Your task to perform on an android device: Go to accessibility settings Image 0: 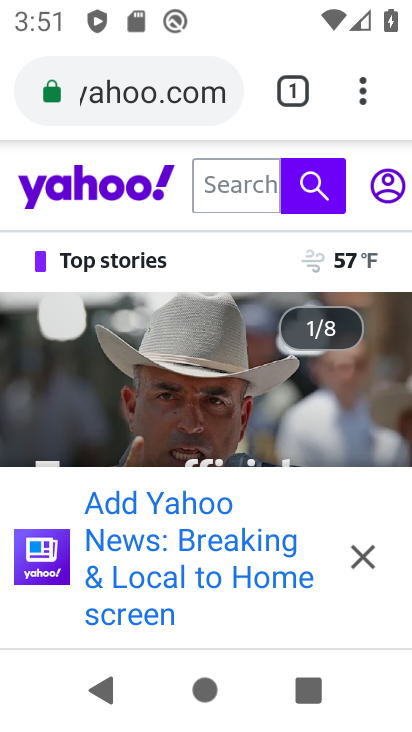
Step 0: press back button
Your task to perform on an android device: Go to accessibility settings Image 1: 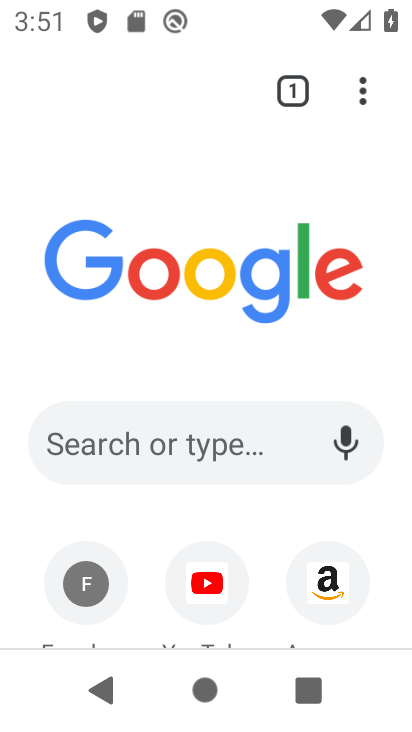
Step 1: press back button
Your task to perform on an android device: Go to accessibility settings Image 2: 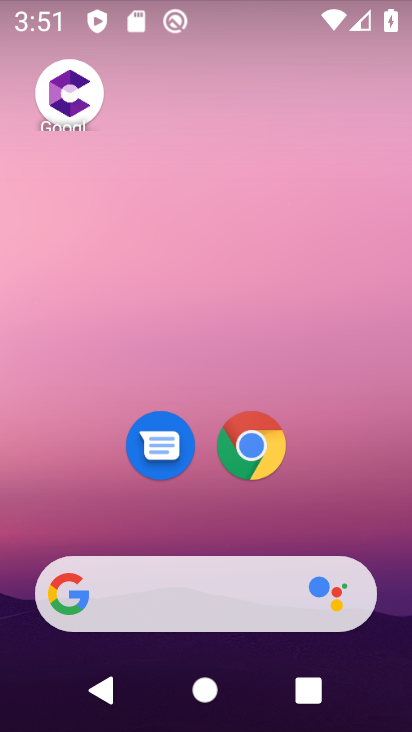
Step 2: drag from (168, 518) to (260, 3)
Your task to perform on an android device: Go to accessibility settings Image 3: 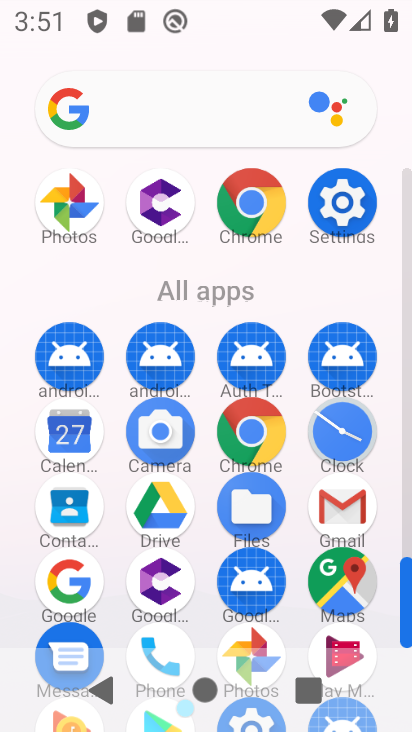
Step 3: click (338, 193)
Your task to perform on an android device: Go to accessibility settings Image 4: 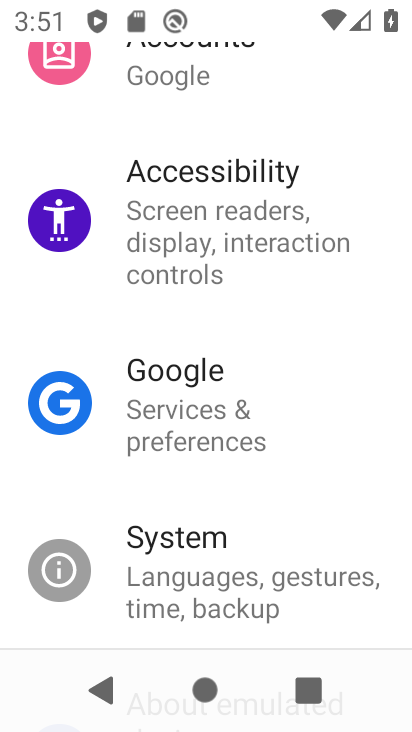
Step 4: drag from (221, 584) to (221, 101)
Your task to perform on an android device: Go to accessibility settings Image 5: 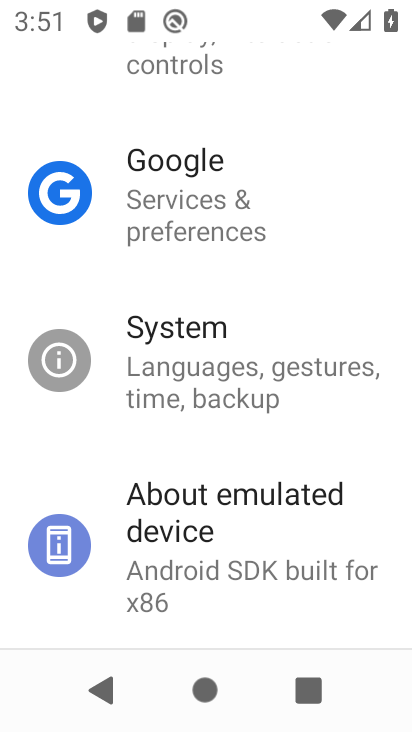
Step 5: drag from (210, 588) to (240, 74)
Your task to perform on an android device: Go to accessibility settings Image 6: 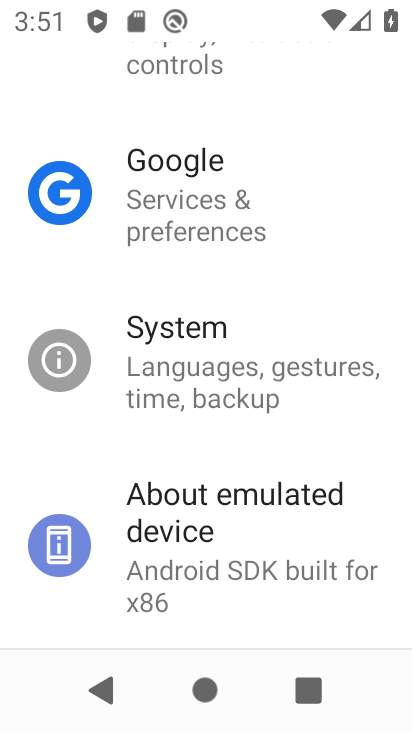
Step 6: drag from (232, 185) to (181, 585)
Your task to perform on an android device: Go to accessibility settings Image 7: 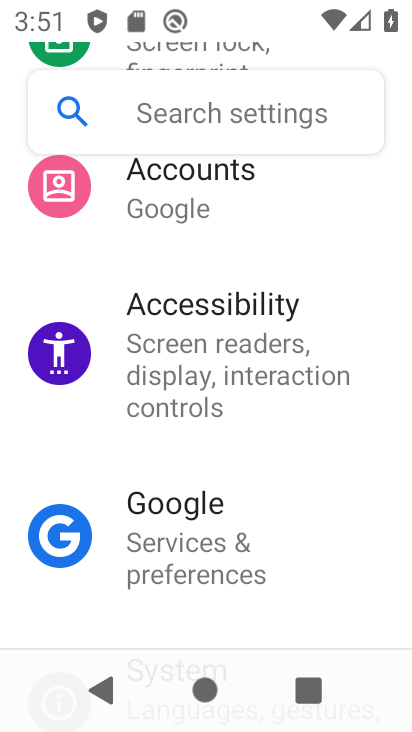
Step 7: click (188, 343)
Your task to perform on an android device: Go to accessibility settings Image 8: 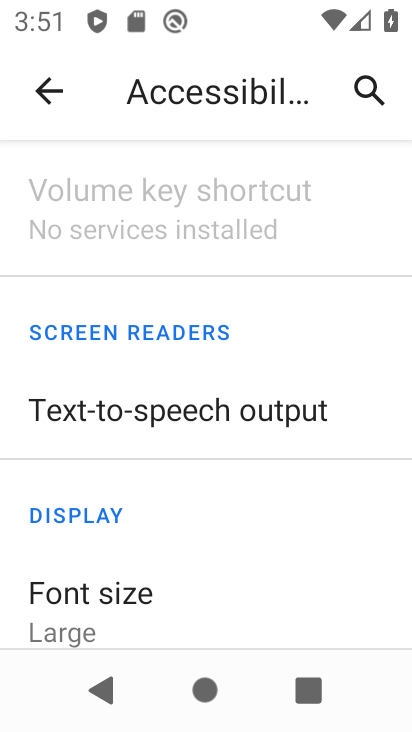
Step 8: task complete